Your task to perform on an android device: turn on priority inbox in the gmail app Image 0: 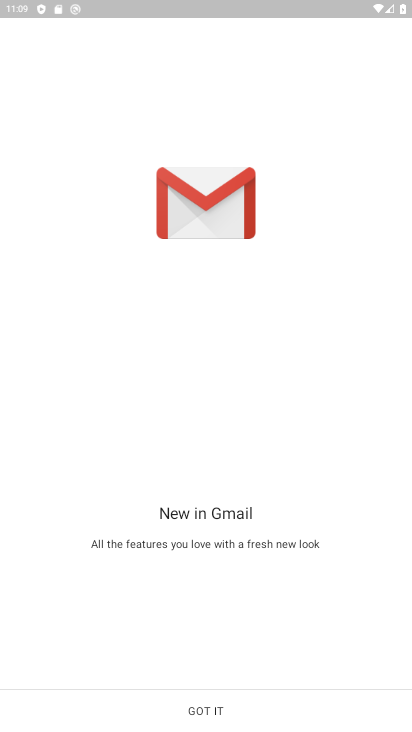
Step 0: click (180, 703)
Your task to perform on an android device: turn on priority inbox in the gmail app Image 1: 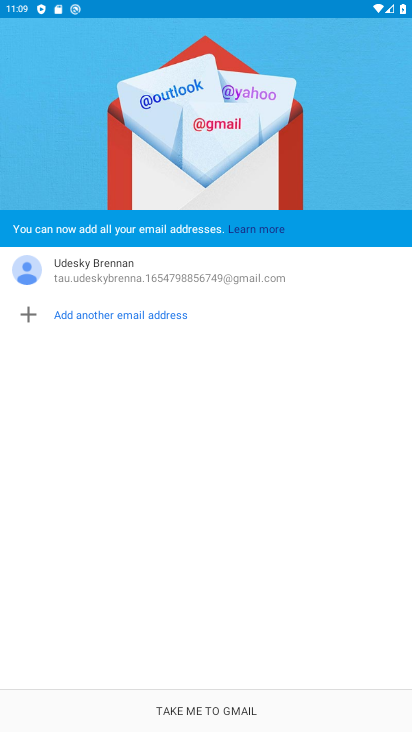
Step 1: click (216, 713)
Your task to perform on an android device: turn on priority inbox in the gmail app Image 2: 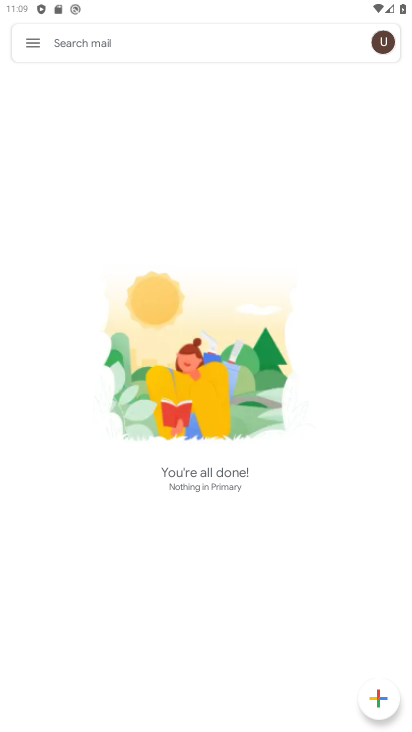
Step 2: click (18, 46)
Your task to perform on an android device: turn on priority inbox in the gmail app Image 3: 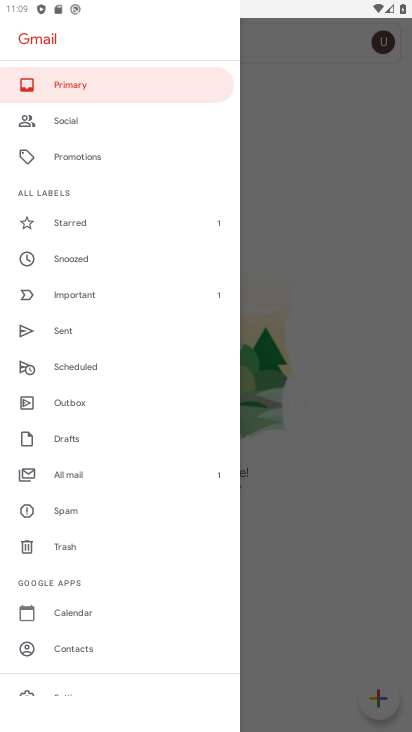
Step 3: drag from (91, 680) to (163, 155)
Your task to perform on an android device: turn on priority inbox in the gmail app Image 4: 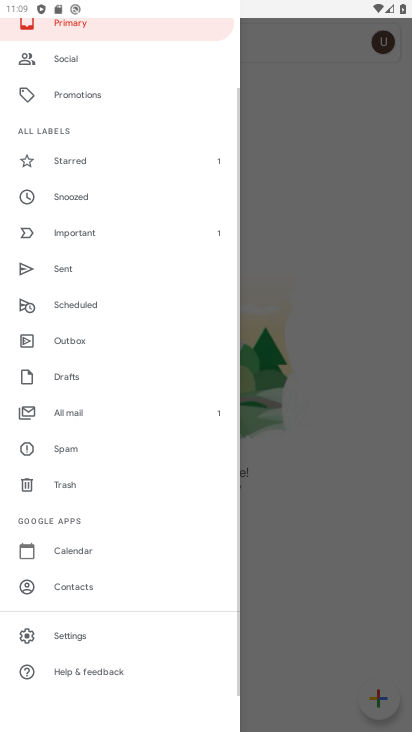
Step 4: click (87, 633)
Your task to perform on an android device: turn on priority inbox in the gmail app Image 5: 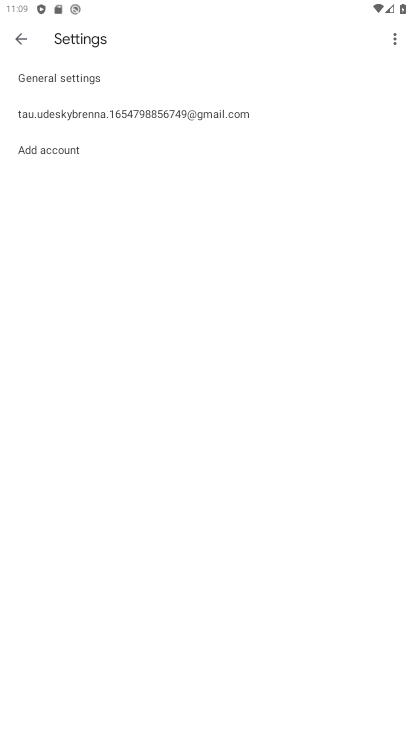
Step 5: click (215, 122)
Your task to perform on an android device: turn on priority inbox in the gmail app Image 6: 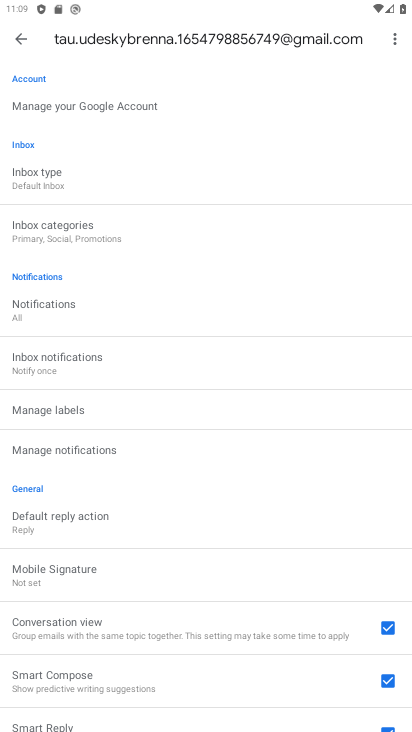
Step 6: click (64, 170)
Your task to perform on an android device: turn on priority inbox in the gmail app Image 7: 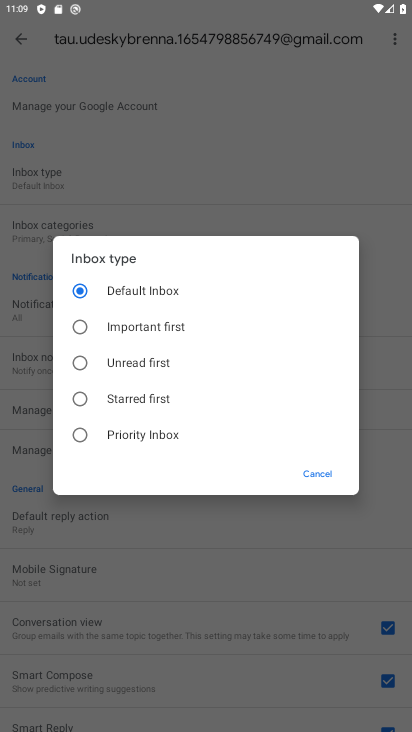
Step 7: click (99, 432)
Your task to perform on an android device: turn on priority inbox in the gmail app Image 8: 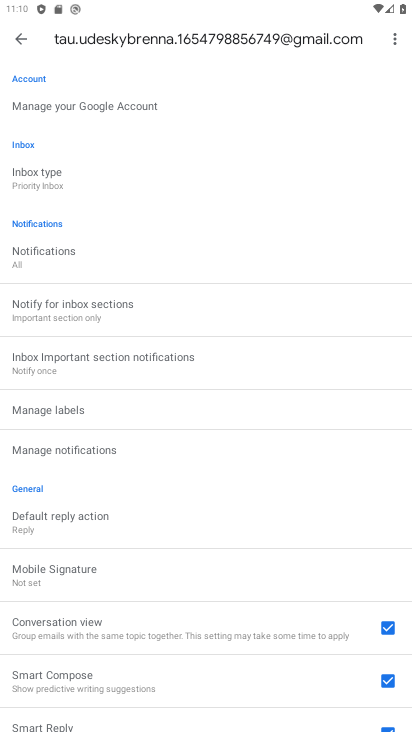
Step 8: task complete